Your task to perform on an android device: Open notification settings Image 0: 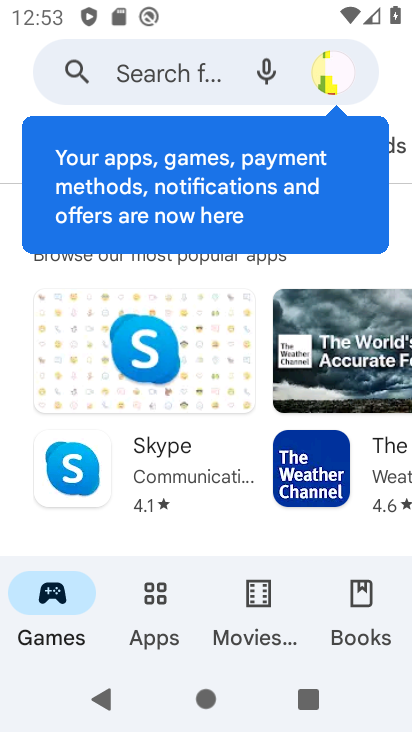
Step 0: press home button
Your task to perform on an android device: Open notification settings Image 1: 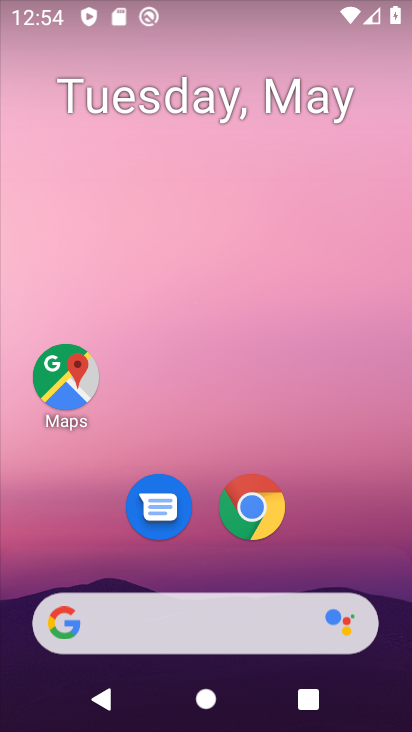
Step 1: drag from (369, 526) to (257, 70)
Your task to perform on an android device: Open notification settings Image 2: 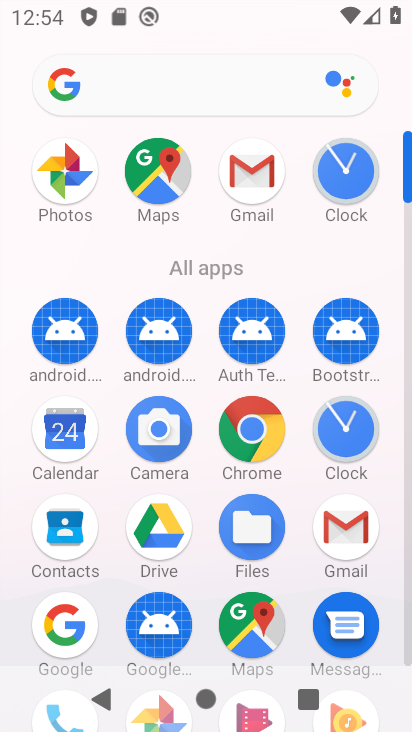
Step 2: click (409, 653)
Your task to perform on an android device: Open notification settings Image 3: 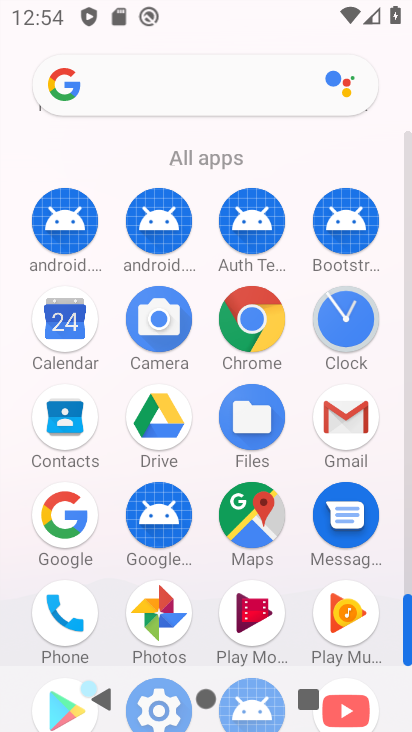
Step 3: drag from (399, 577) to (392, 374)
Your task to perform on an android device: Open notification settings Image 4: 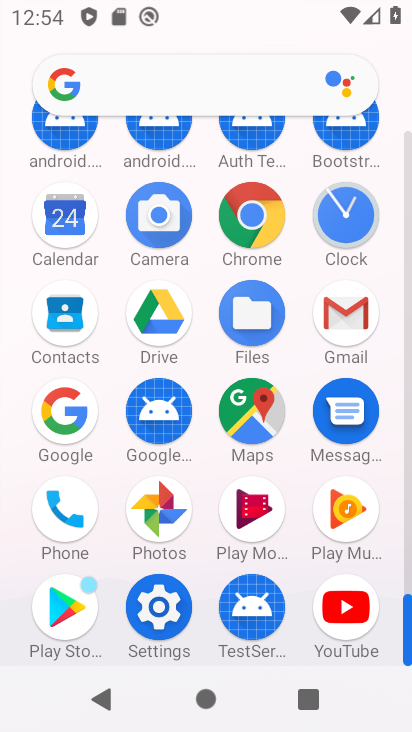
Step 4: click (158, 582)
Your task to perform on an android device: Open notification settings Image 5: 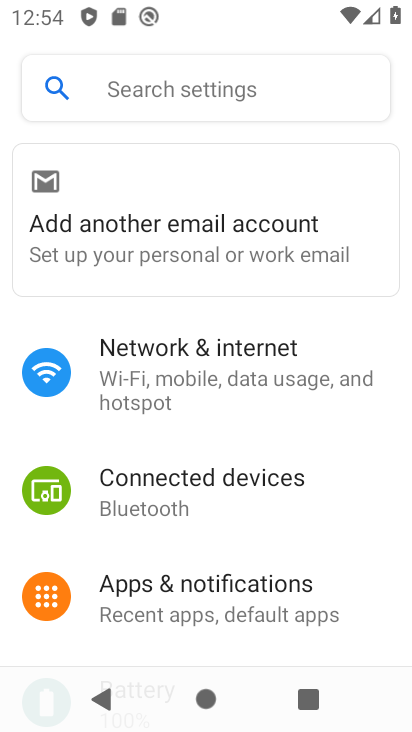
Step 5: click (241, 580)
Your task to perform on an android device: Open notification settings Image 6: 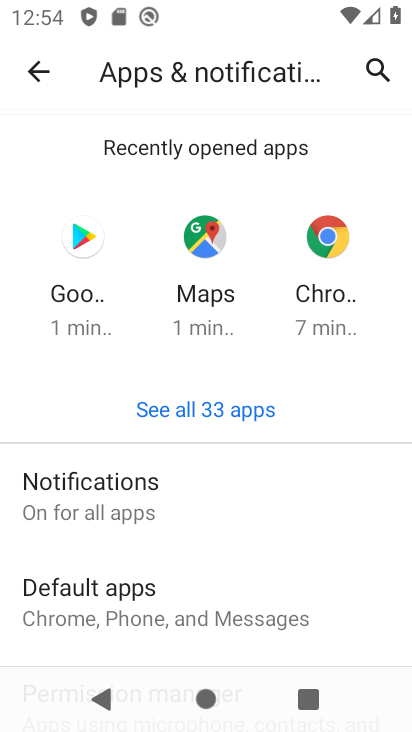
Step 6: click (230, 510)
Your task to perform on an android device: Open notification settings Image 7: 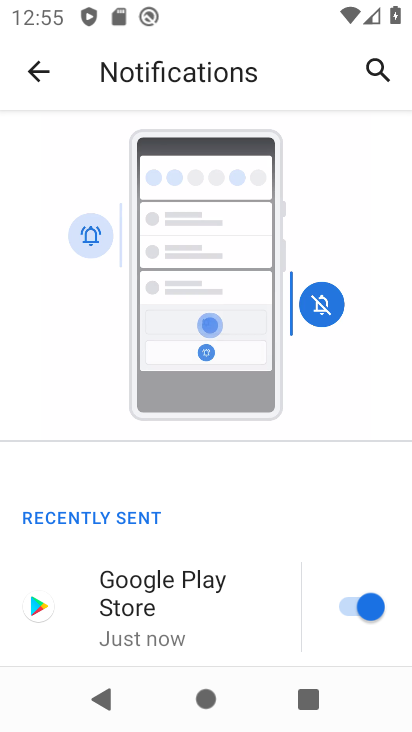
Step 7: task complete